Your task to perform on an android device: Empty the shopping cart on newegg.com. Image 0: 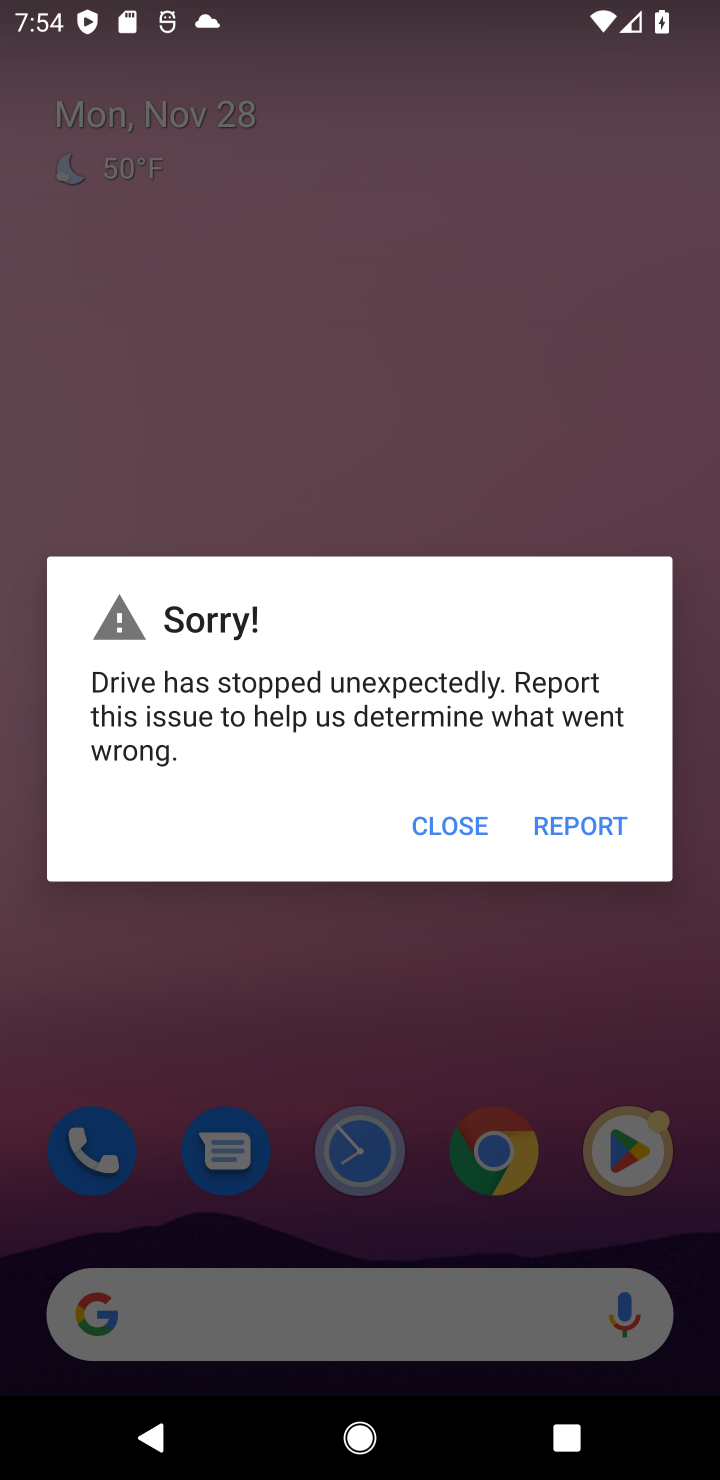
Step 0: press home button
Your task to perform on an android device: Empty the shopping cart on newegg.com. Image 1: 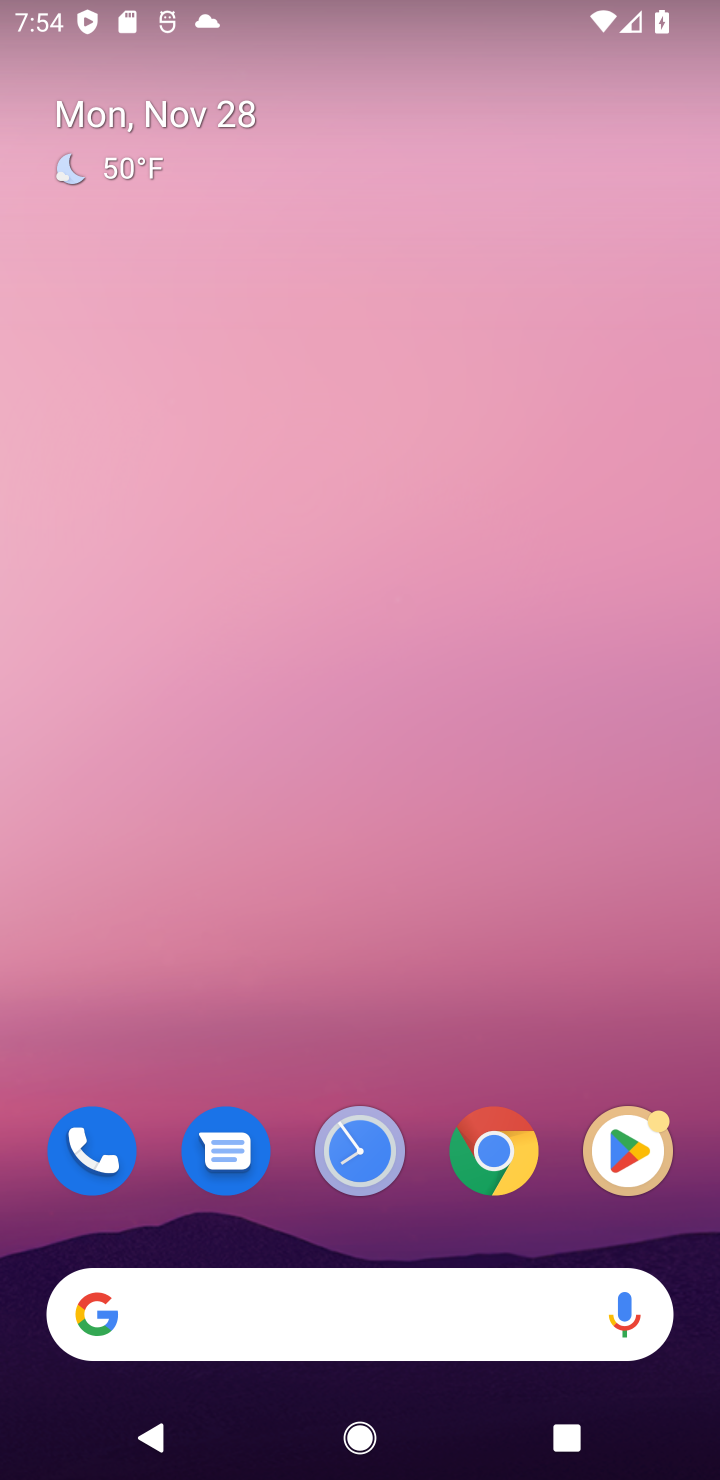
Step 1: click (184, 1343)
Your task to perform on an android device: Empty the shopping cart on newegg.com. Image 2: 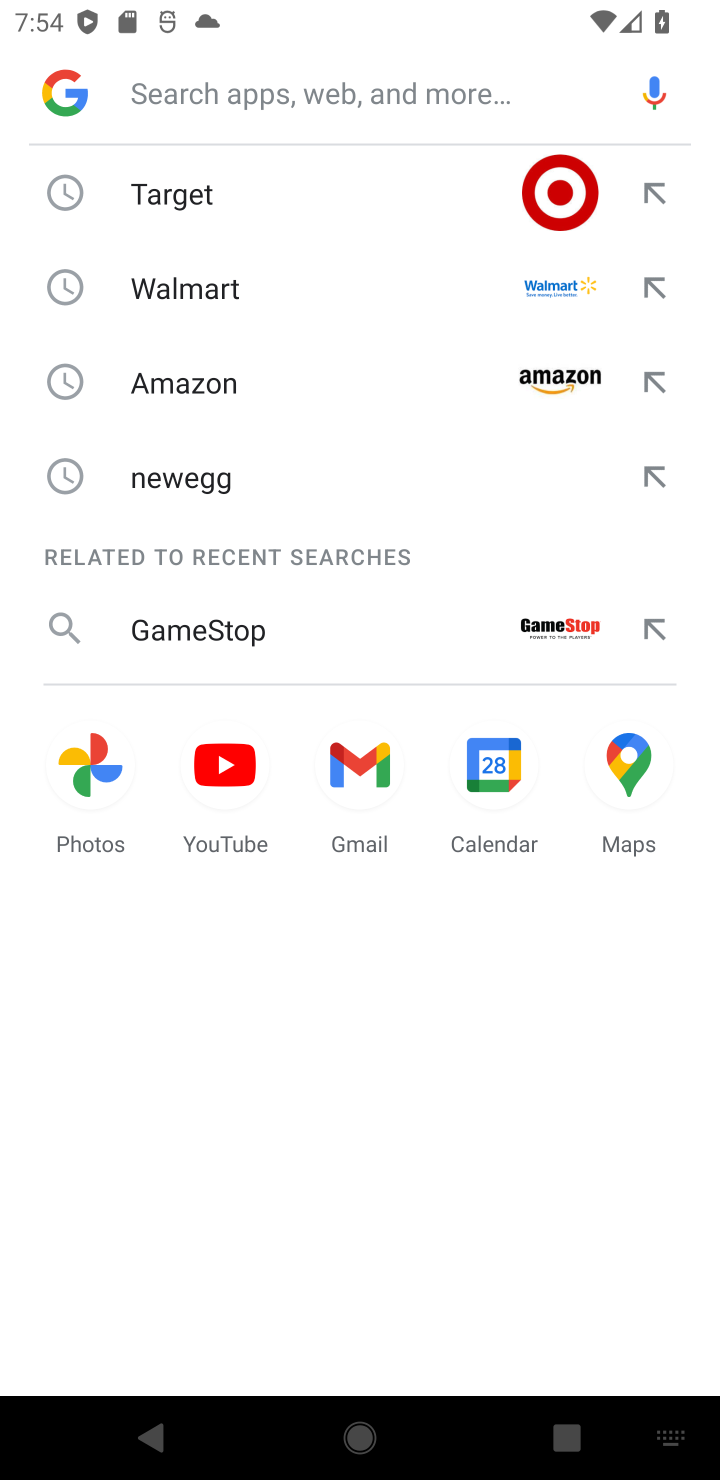
Step 2: click (312, 1308)
Your task to perform on an android device: Empty the shopping cart on newegg.com. Image 3: 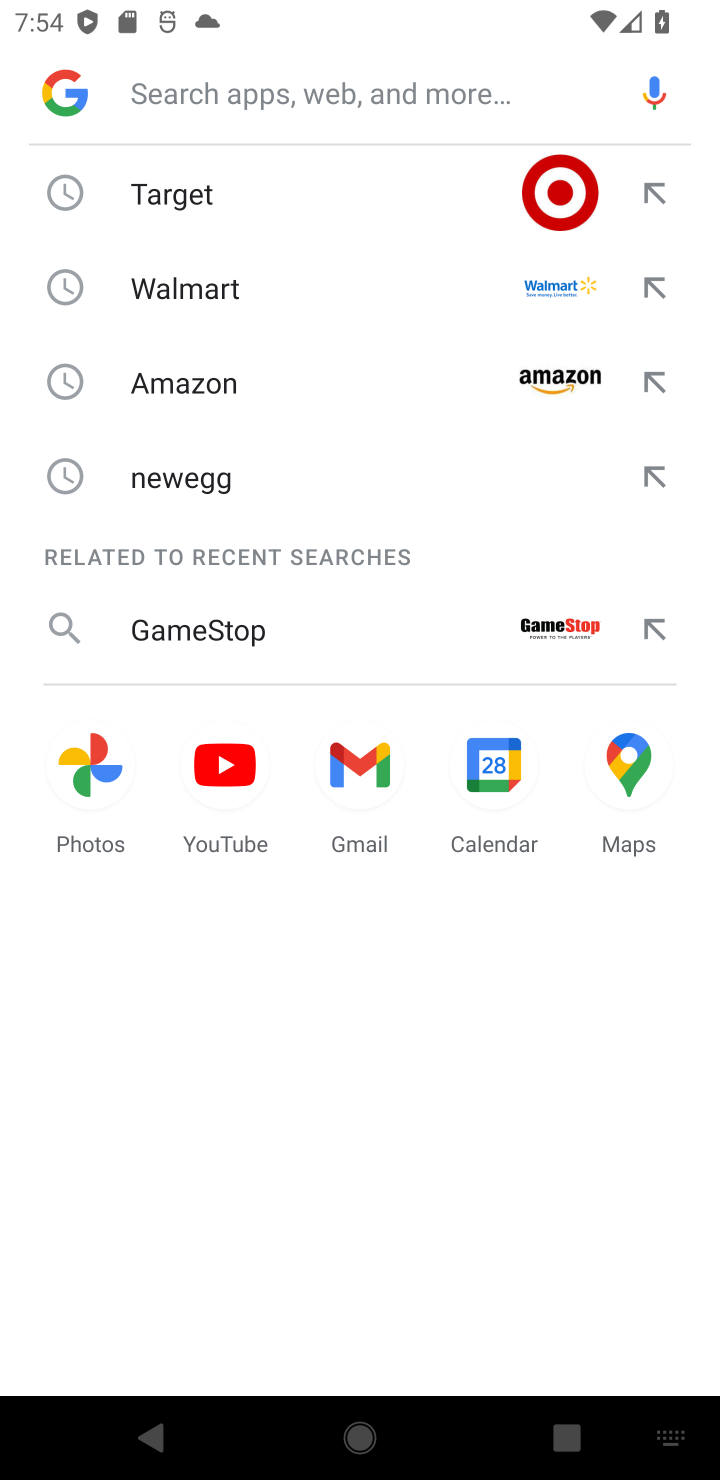
Step 3: type "newegg.com"
Your task to perform on an android device: Empty the shopping cart on newegg.com. Image 4: 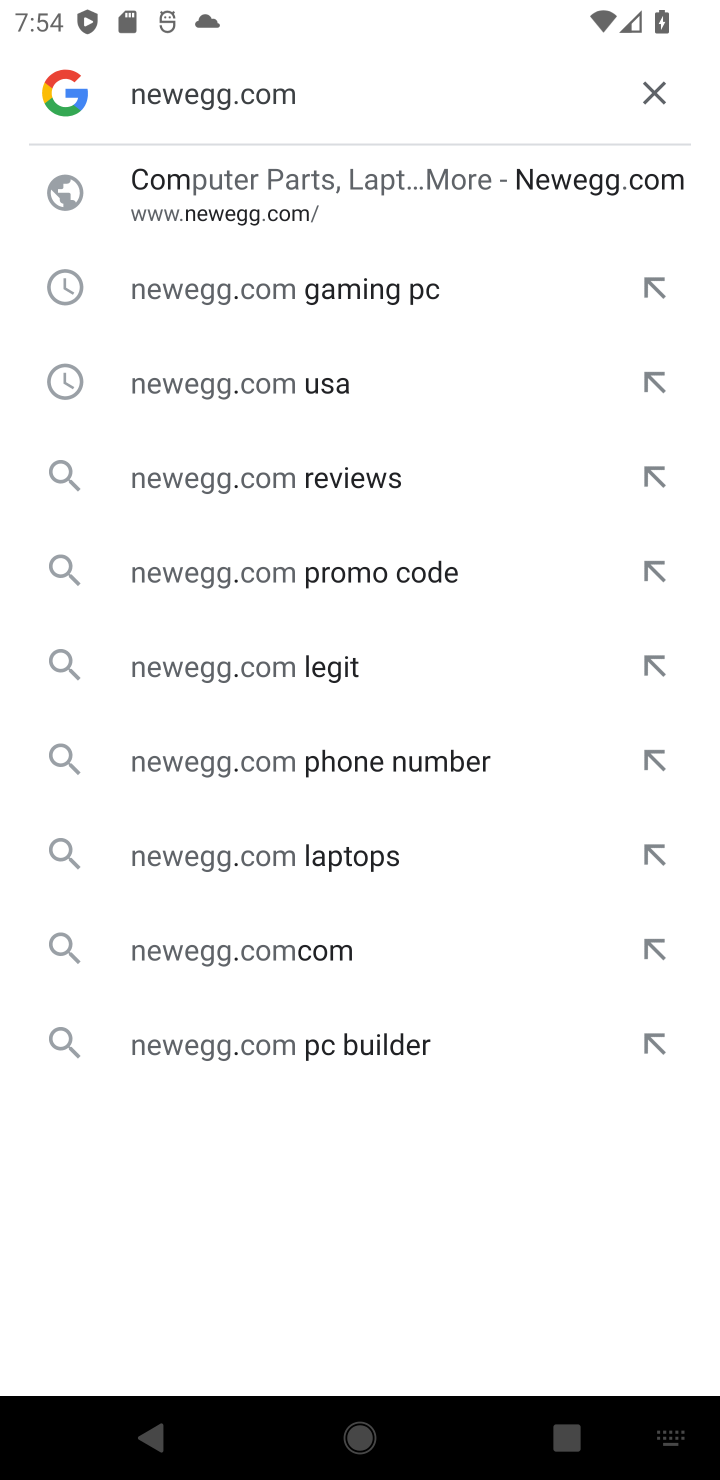
Step 4: click (272, 240)
Your task to perform on an android device: Empty the shopping cart on newegg.com. Image 5: 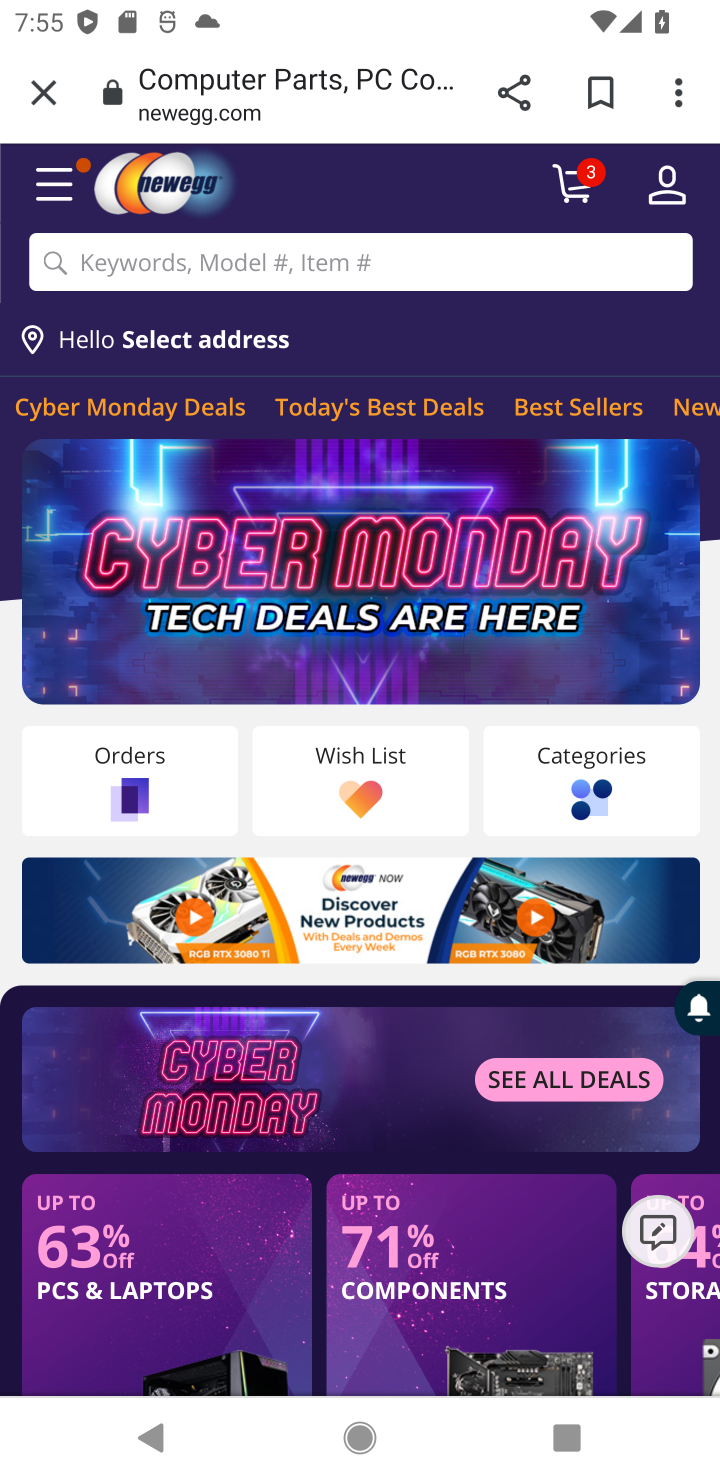
Step 5: task complete